Your task to perform on an android device: delete location history Image 0: 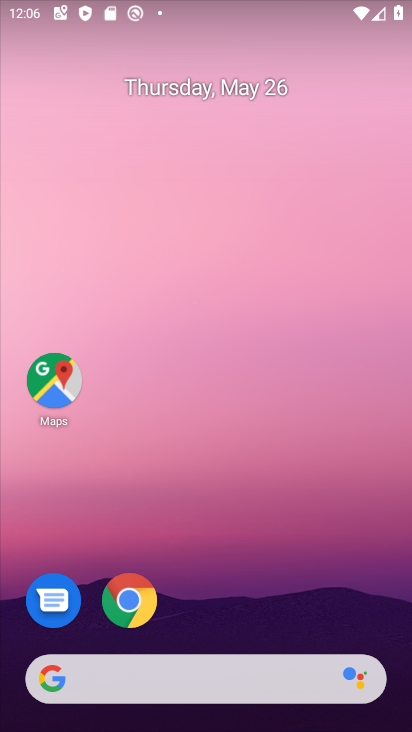
Step 0: drag from (351, 581) to (301, 1)
Your task to perform on an android device: delete location history Image 1: 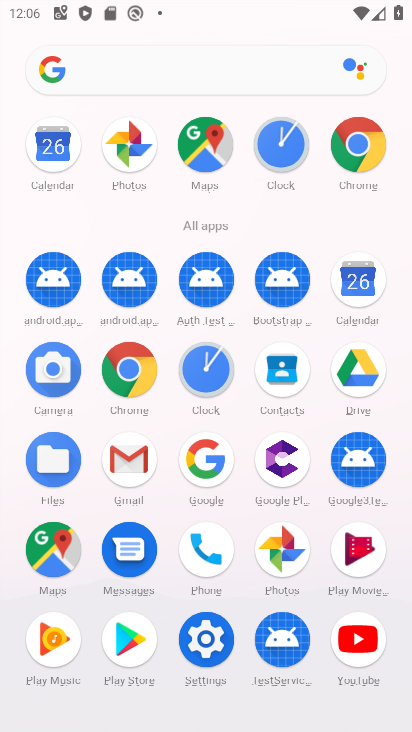
Step 1: click (53, 552)
Your task to perform on an android device: delete location history Image 2: 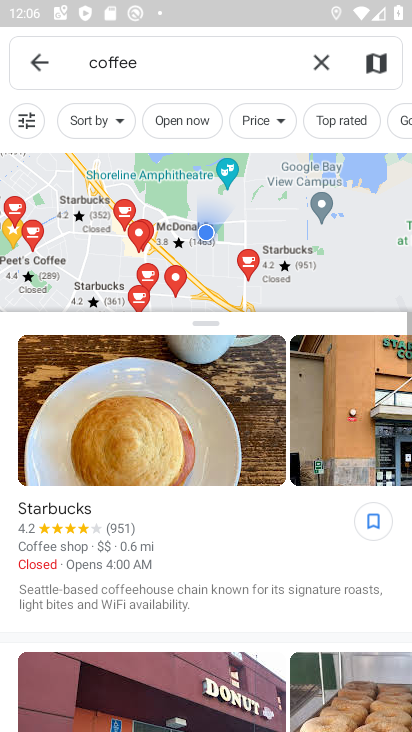
Step 2: click (37, 69)
Your task to perform on an android device: delete location history Image 3: 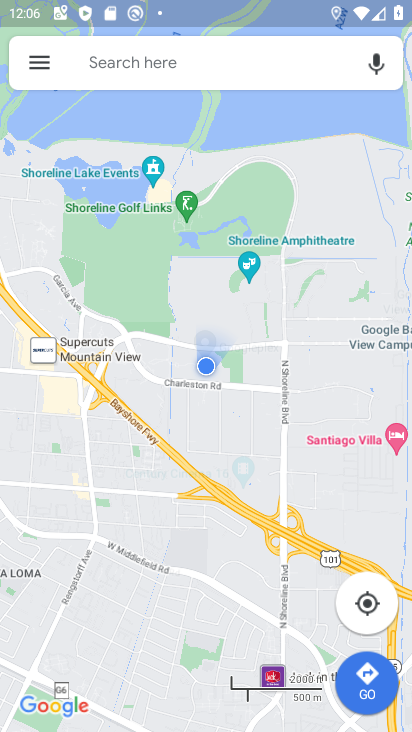
Step 3: click (37, 69)
Your task to perform on an android device: delete location history Image 4: 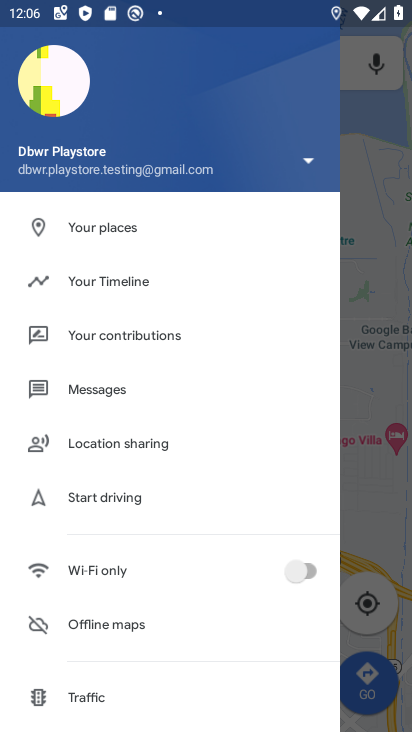
Step 4: drag from (161, 694) to (202, 256)
Your task to perform on an android device: delete location history Image 5: 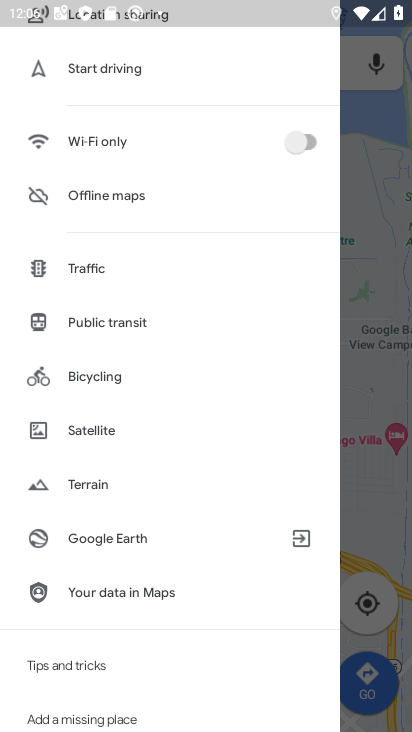
Step 5: drag from (103, 684) to (240, 298)
Your task to perform on an android device: delete location history Image 6: 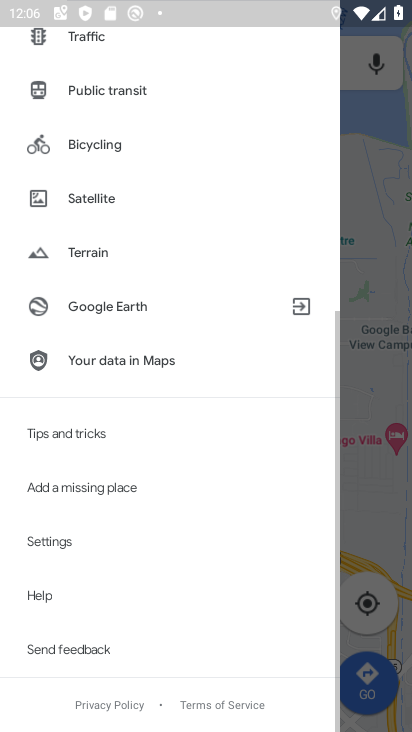
Step 6: click (74, 535)
Your task to perform on an android device: delete location history Image 7: 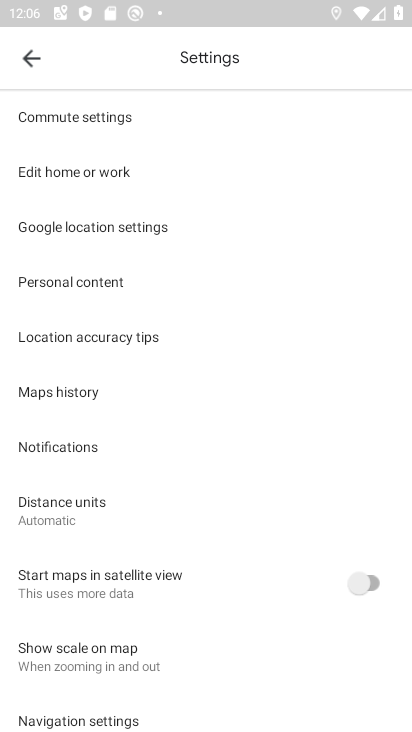
Step 7: drag from (184, 631) to (247, 209)
Your task to perform on an android device: delete location history Image 8: 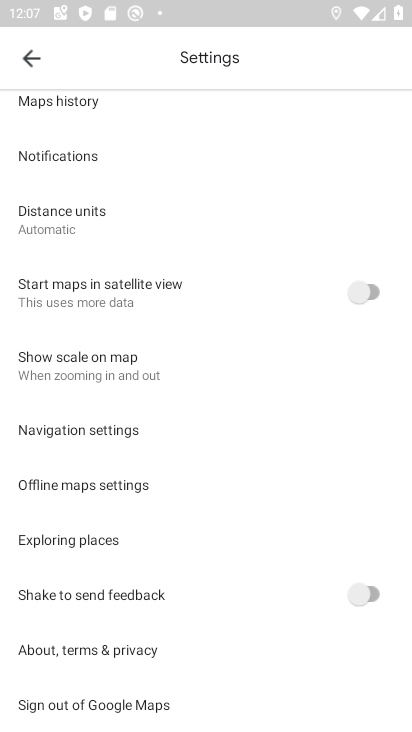
Step 8: drag from (165, 603) to (245, 166)
Your task to perform on an android device: delete location history Image 9: 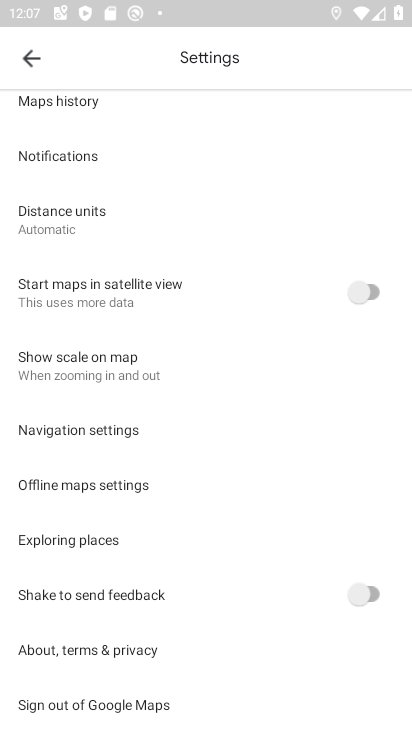
Step 9: drag from (166, 294) to (160, 593)
Your task to perform on an android device: delete location history Image 10: 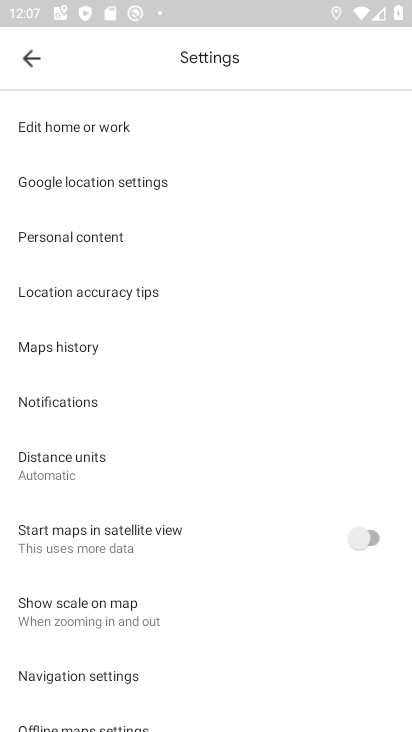
Step 10: click (76, 347)
Your task to perform on an android device: delete location history Image 11: 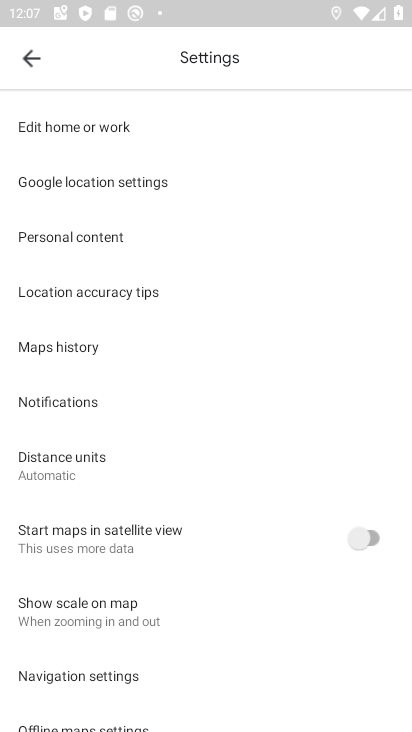
Step 11: click (88, 338)
Your task to perform on an android device: delete location history Image 12: 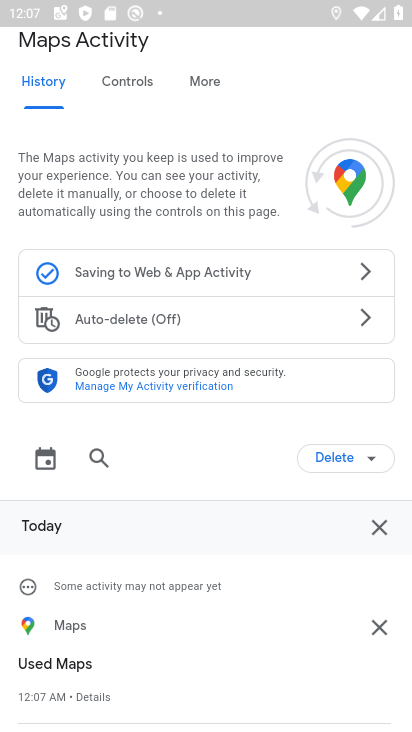
Step 12: click (362, 458)
Your task to perform on an android device: delete location history Image 13: 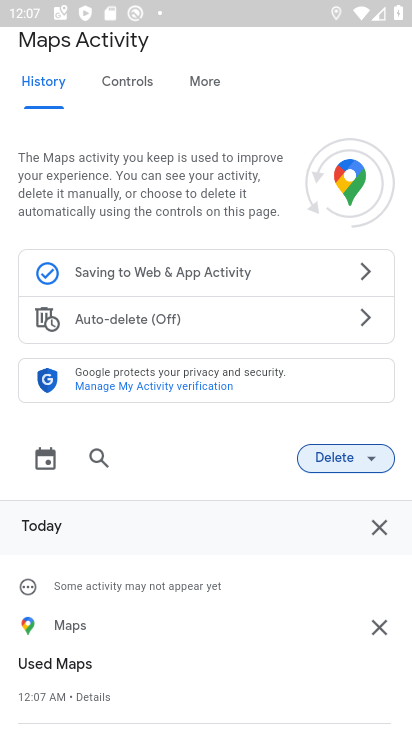
Step 13: click (373, 462)
Your task to perform on an android device: delete location history Image 14: 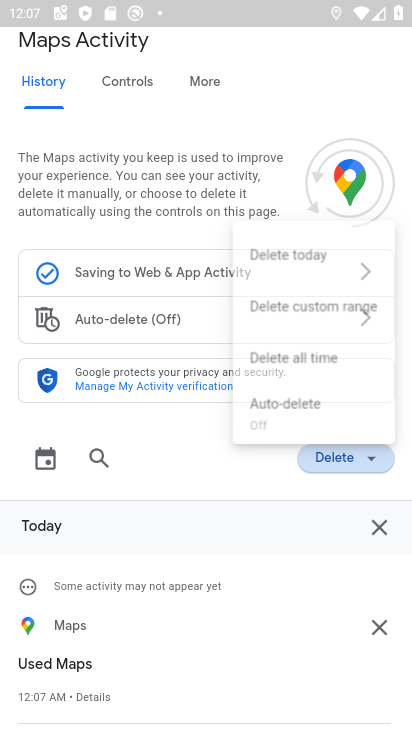
Step 14: click (372, 458)
Your task to perform on an android device: delete location history Image 15: 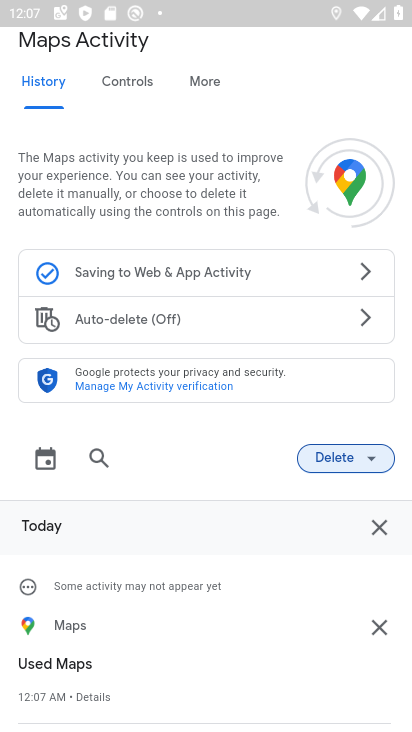
Step 15: click (368, 456)
Your task to perform on an android device: delete location history Image 16: 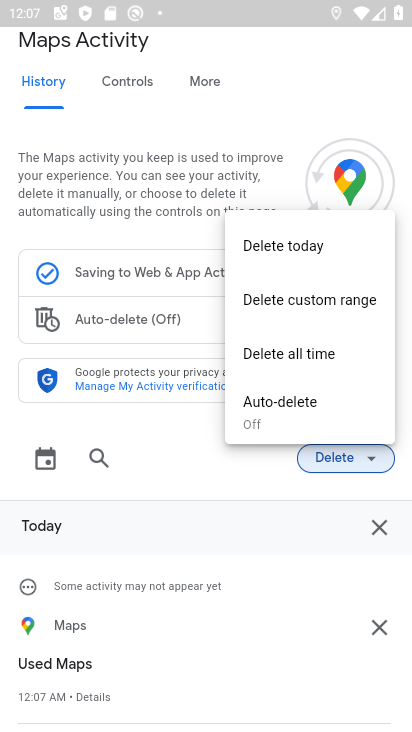
Step 16: click (299, 356)
Your task to perform on an android device: delete location history Image 17: 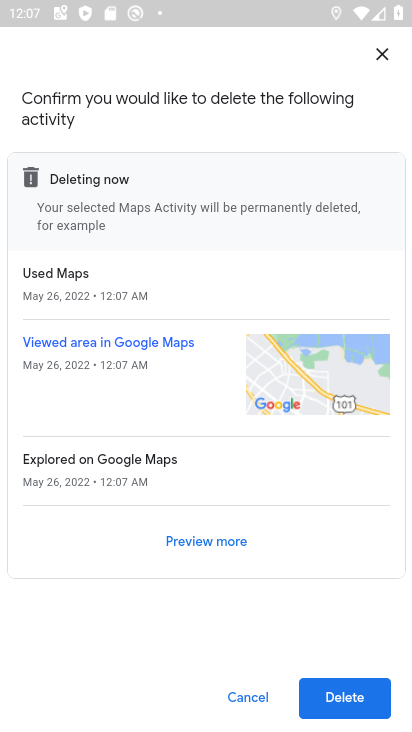
Step 17: click (344, 693)
Your task to perform on an android device: delete location history Image 18: 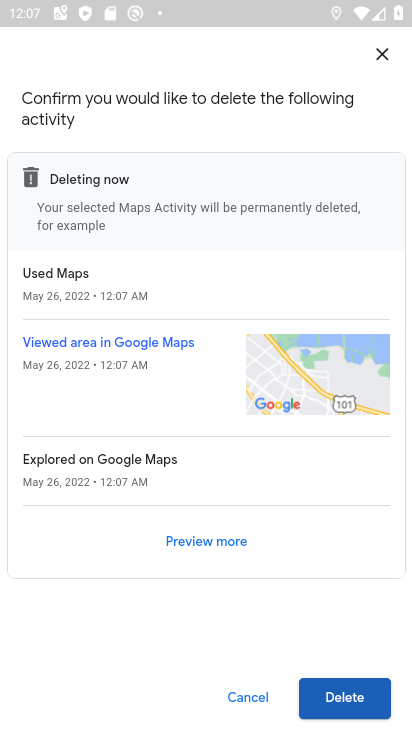
Step 18: click (353, 695)
Your task to perform on an android device: delete location history Image 19: 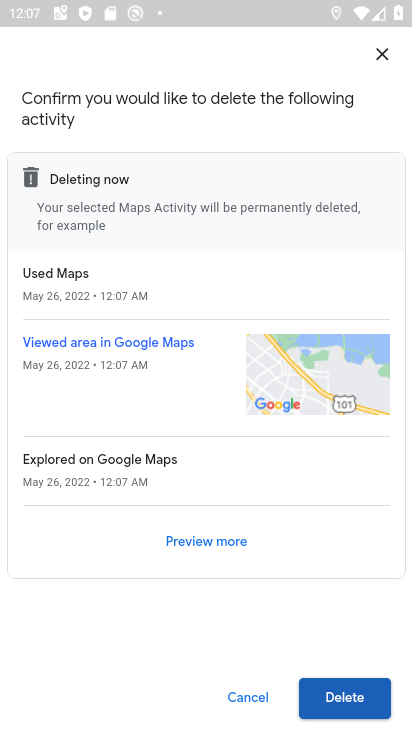
Step 19: click (369, 707)
Your task to perform on an android device: delete location history Image 20: 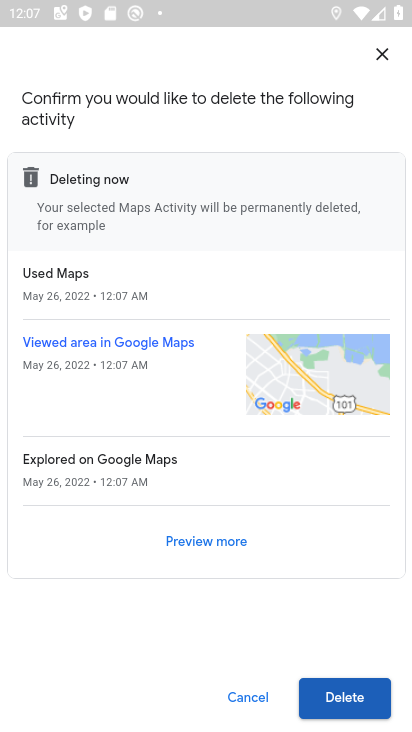
Step 20: click (367, 702)
Your task to perform on an android device: delete location history Image 21: 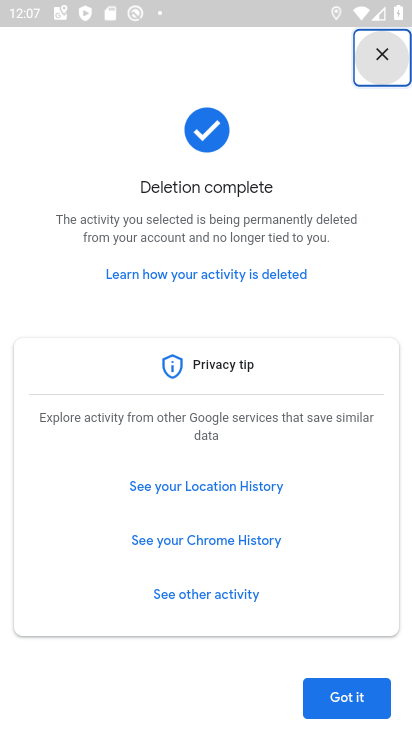
Step 21: click (353, 701)
Your task to perform on an android device: delete location history Image 22: 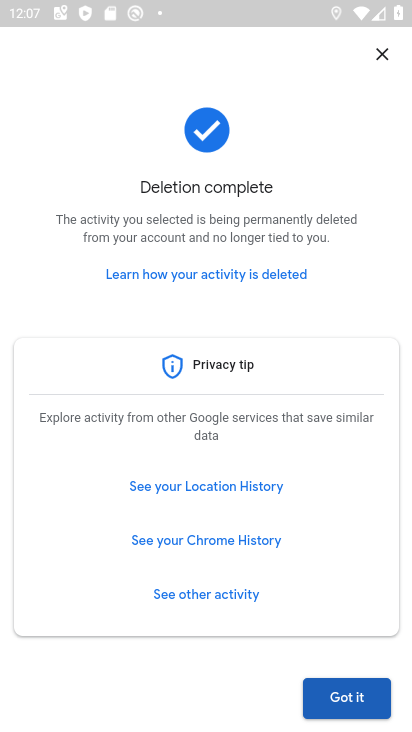
Step 22: task complete